Your task to perform on an android device: toggle location history Image 0: 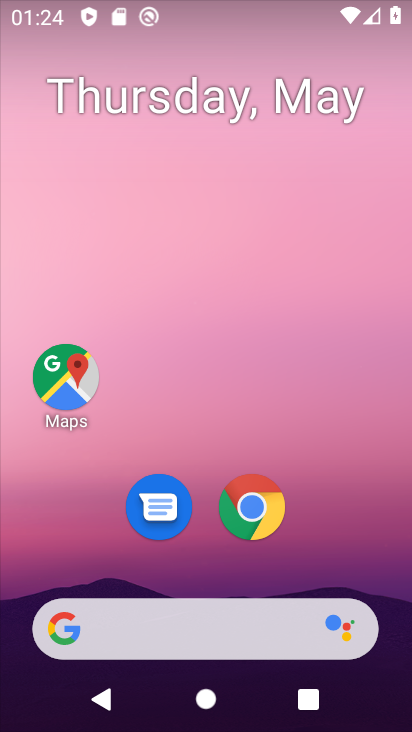
Step 0: drag from (329, 565) to (318, 175)
Your task to perform on an android device: toggle location history Image 1: 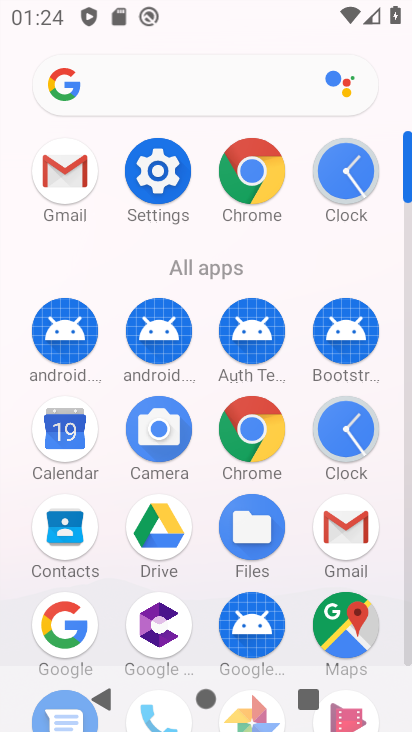
Step 1: click (167, 181)
Your task to perform on an android device: toggle location history Image 2: 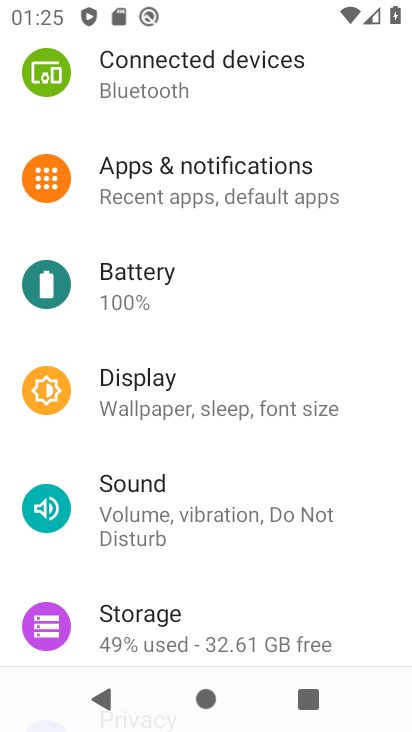
Step 2: drag from (174, 505) to (199, 276)
Your task to perform on an android device: toggle location history Image 3: 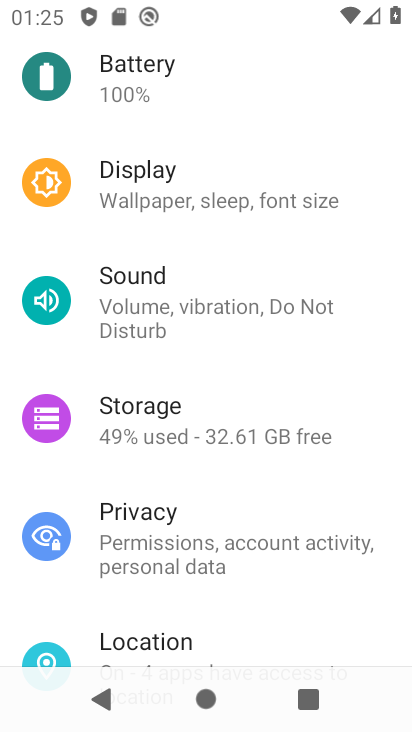
Step 3: drag from (196, 324) to (225, 180)
Your task to perform on an android device: toggle location history Image 4: 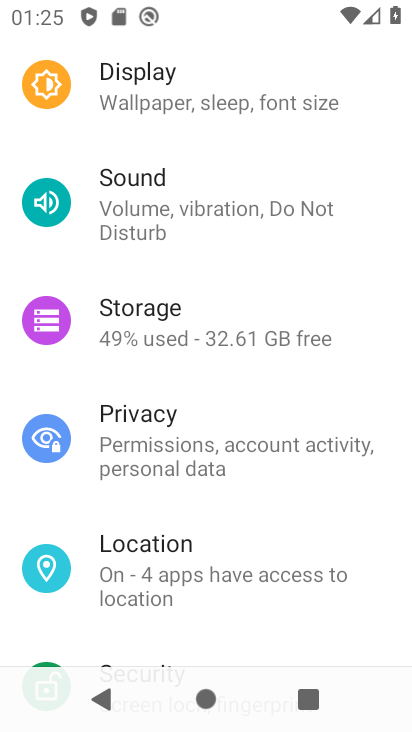
Step 4: click (164, 561)
Your task to perform on an android device: toggle location history Image 5: 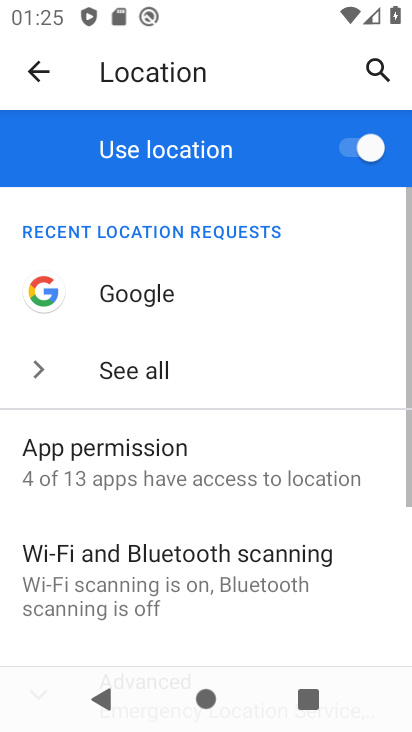
Step 5: drag from (130, 566) to (252, 211)
Your task to perform on an android device: toggle location history Image 6: 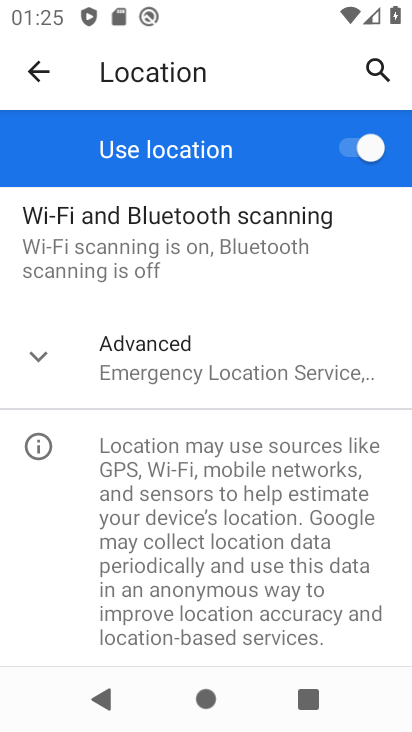
Step 6: click (163, 354)
Your task to perform on an android device: toggle location history Image 7: 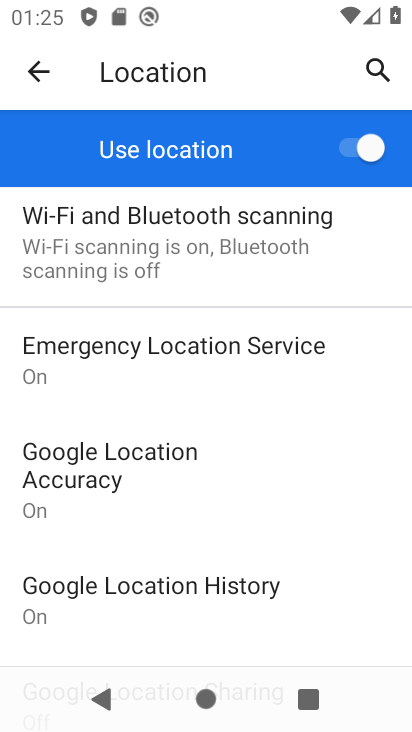
Step 7: click (169, 614)
Your task to perform on an android device: toggle location history Image 8: 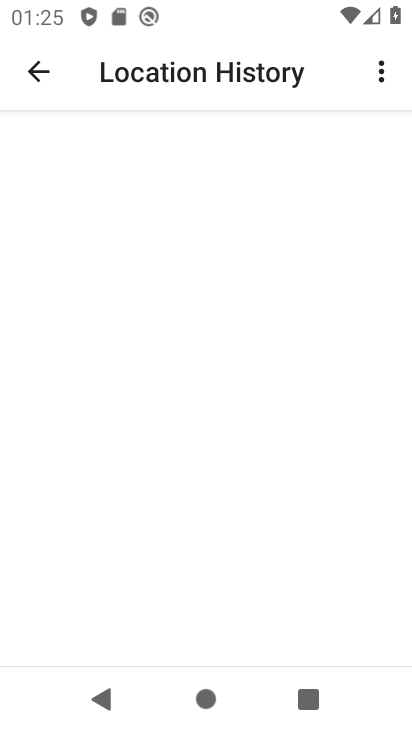
Step 8: drag from (198, 560) to (212, 192)
Your task to perform on an android device: toggle location history Image 9: 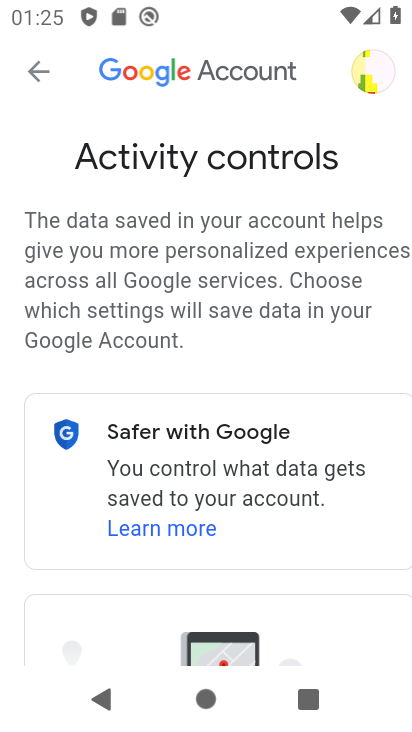
Step 9: drag from (241, 590) to (323, 214)
Your task to perform on an android device: toggle location history Image 10: 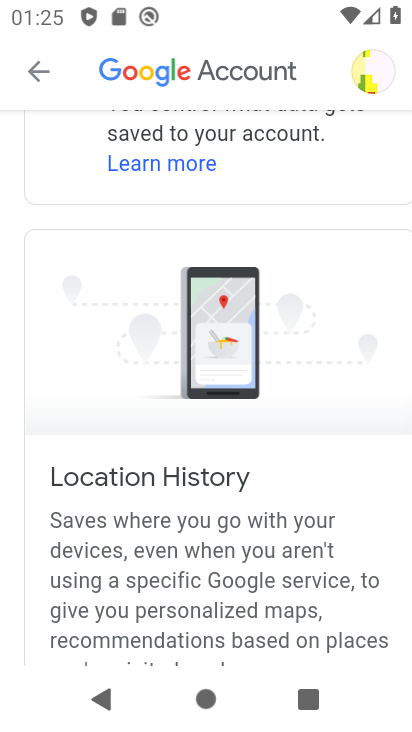
Step 10: drag from (231, 563) to (314, 230)
Your task to perform on an android device: toggle location history Image 11: 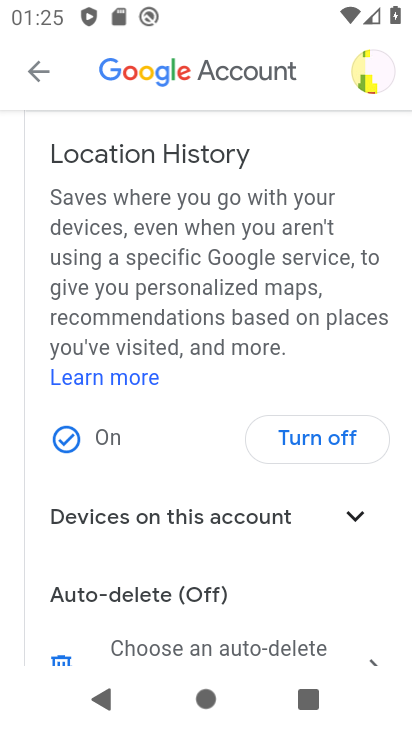
Step 11: click (336, 436)
Your task to perform on an android device: toggle location history Image 12: 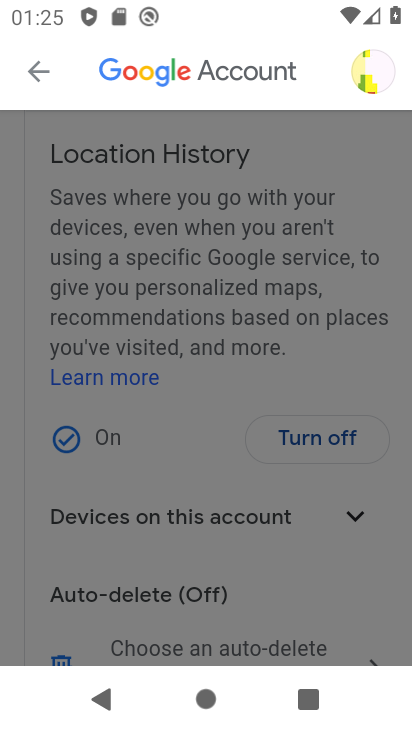
Step 12: click (335, 436)
Your task to perform on an android device: toggle location history Image 13: 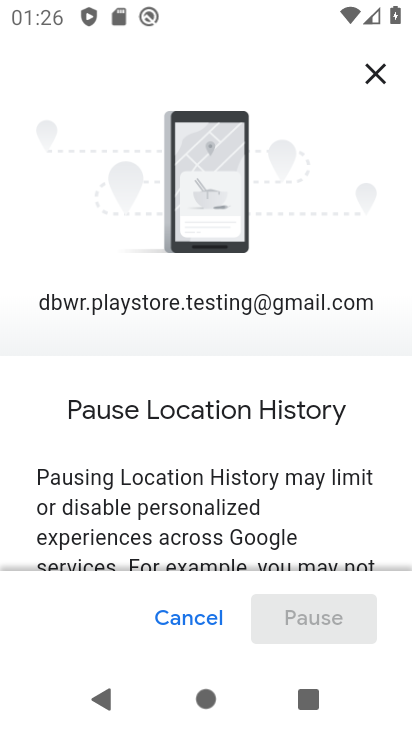
Step 13: task complete